Your task to perform on an android device: turn off sleep mode Image 0: 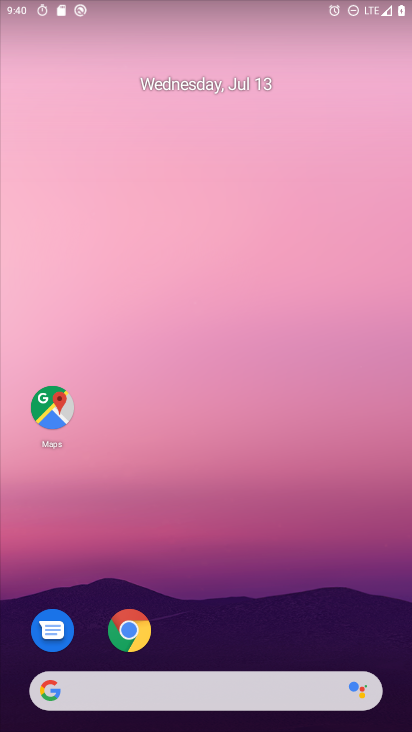
Step 0: drag from (372, 610) to (138, 31)
Your task to perform on an android device: turn off sleep mode Image 1: 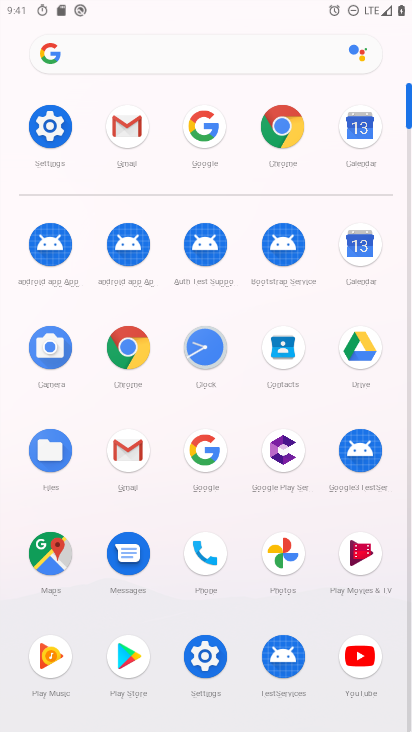
Step 1: click (196, 665)
Your task to perform on an android device: turn off sleep mode Image 2: 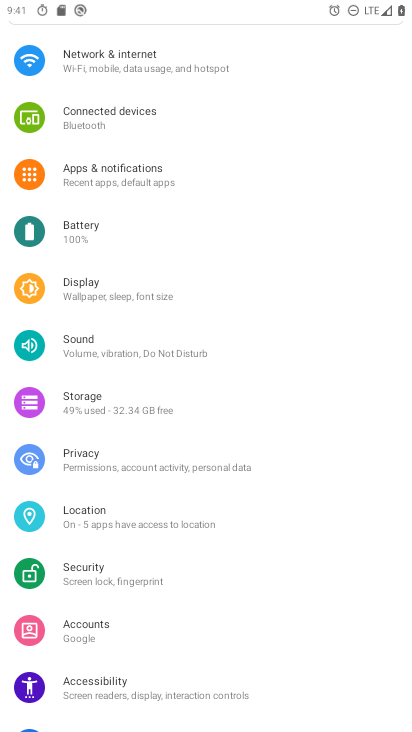
Step 2: task complete